Your task to perform on an android device: open sync settings in chrome Image 0: 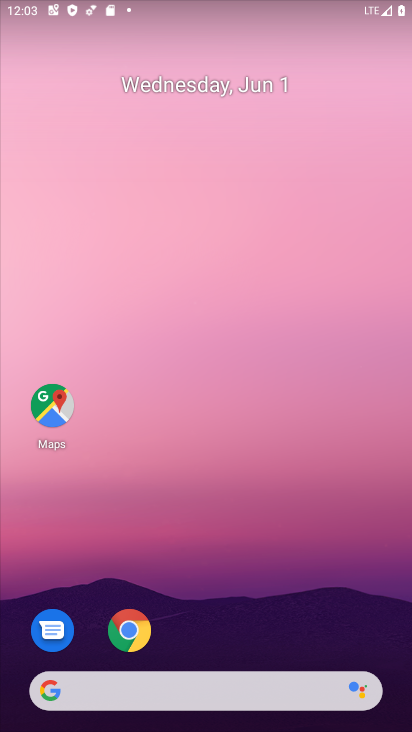
Step 0: click (133, 642)
Your task to perform on an android device: open sync settings in chrome Image 1: 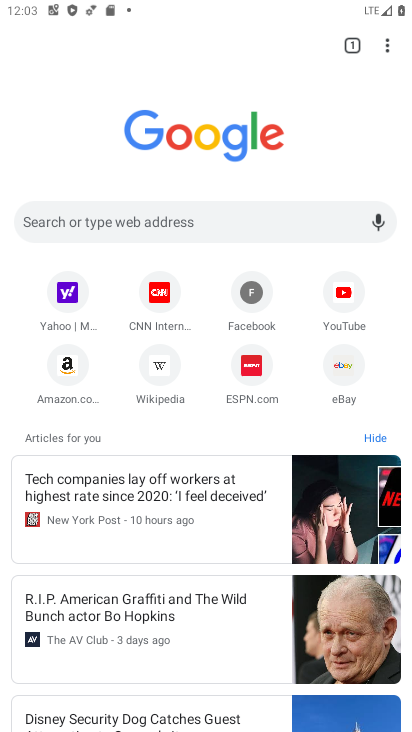
Step 1: drag from (385, 42) to (221, 376)
Your task to perform on an android device: open sync settings in chrome Image 2: 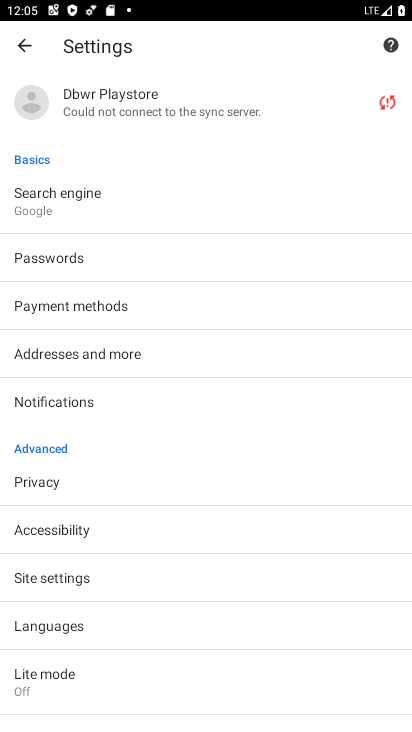
Step 2: click (116, 100)
Your task to perform on an android device: open sync settings in chrome Image 3: 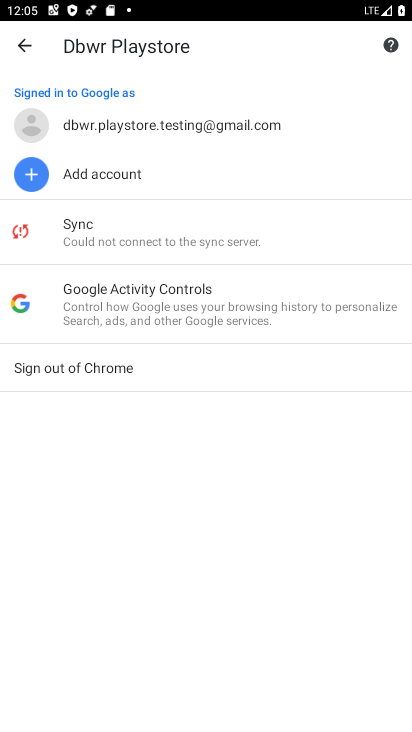
Step 3: click (139, 239)
Your task to perform on an android device: open sync settings in chrome Image 4: 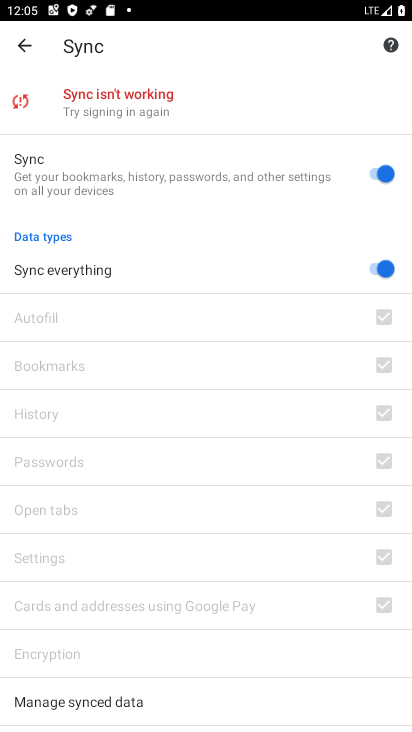
Step 4: task complete